Your task to perform on an android device: add a contact in the contacts app Image 0: 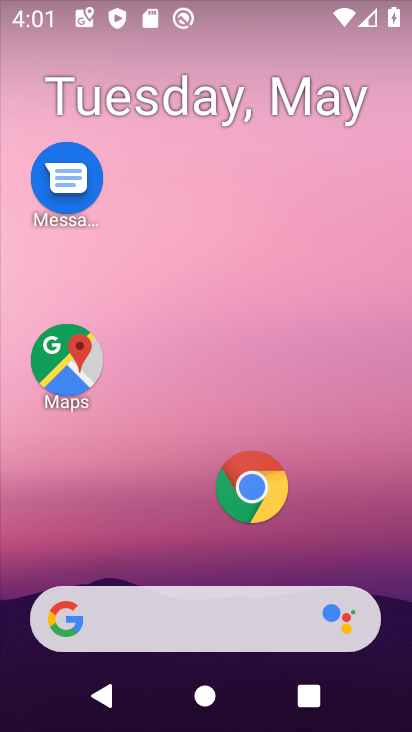
Step 0: drag from (276, 556) to (268, 3)
Your task to perform on an android device: add a contact in the contacts app Image 1: 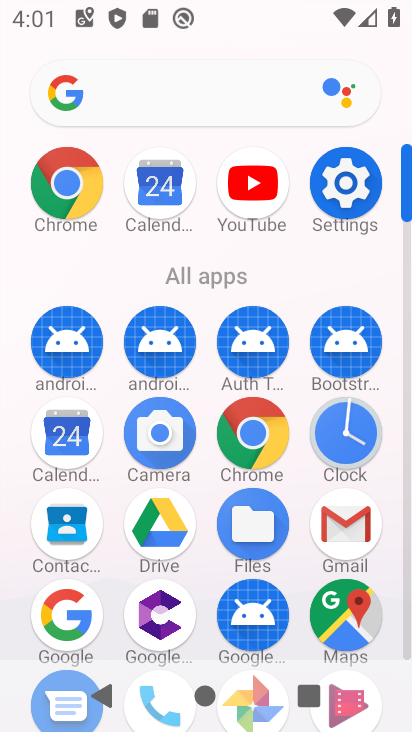
Step 1: click (67, 529)
Your task to perform on an android device: add a contact in the contacts app Image 2: 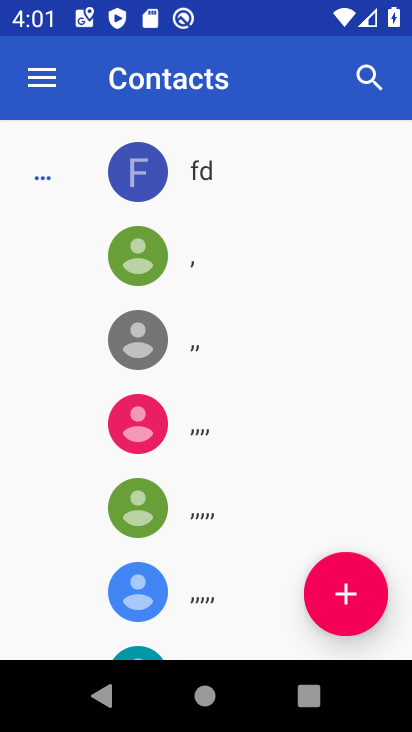
Step 2: click (335, 609)
Your task to perform on an android device: add a contact in the contacts app Image 3: 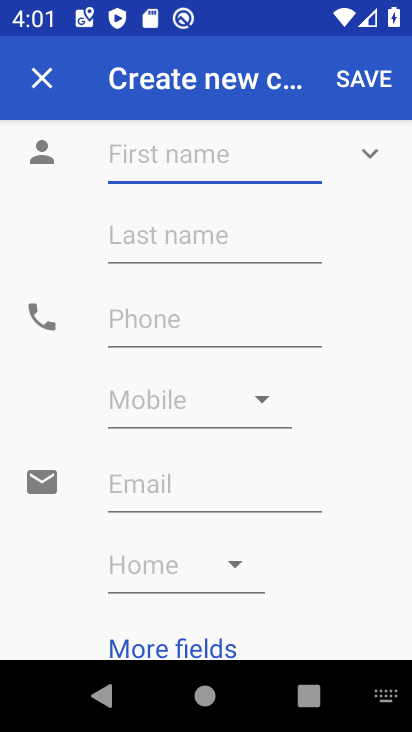
Step 3: click (211, 185)
Your task to perform on an android device: add a contact in the contacts app Image 4: 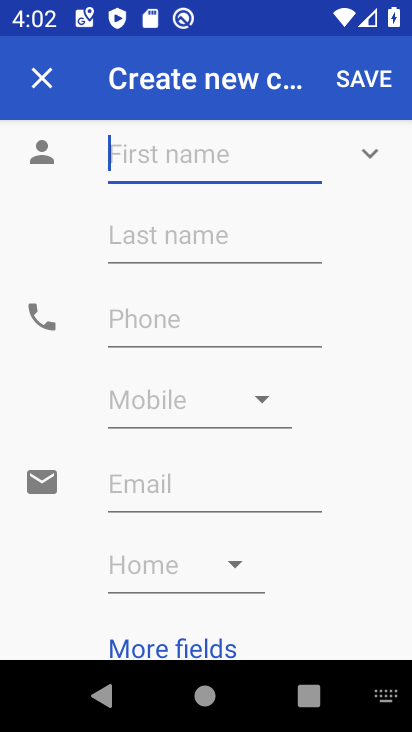
Step 4: type "Anita"
Your task to perform on an android device: add a contact in the contacts app Image 5: 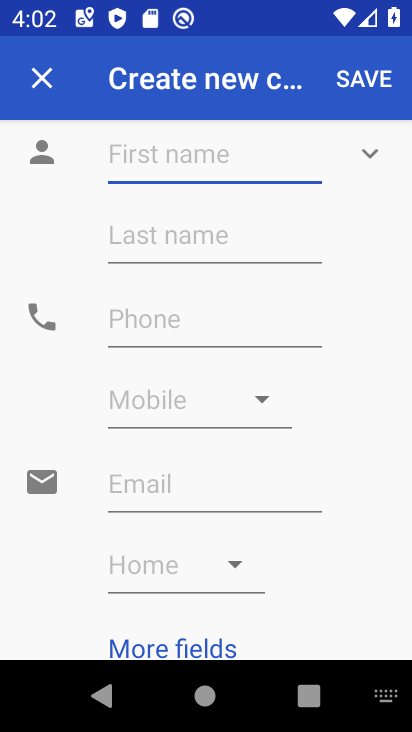
Step 5: click (134, 245)
Your task to perform on an android device: add a contact in the contacts app Image 6: 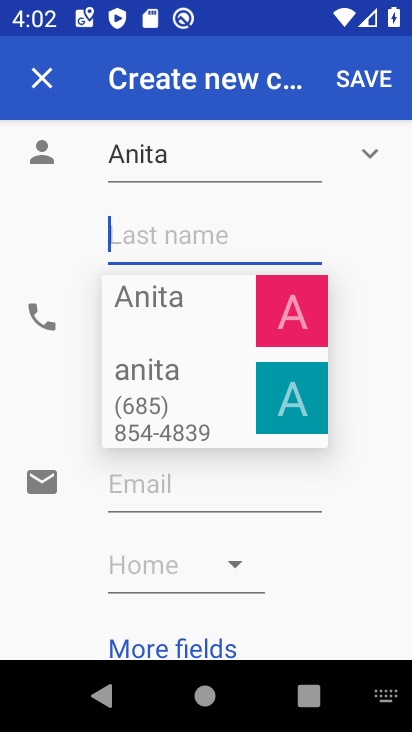
Step 6: type "lobo"
Your task to perform on an android device: add a contact in the contacts app Image 7: 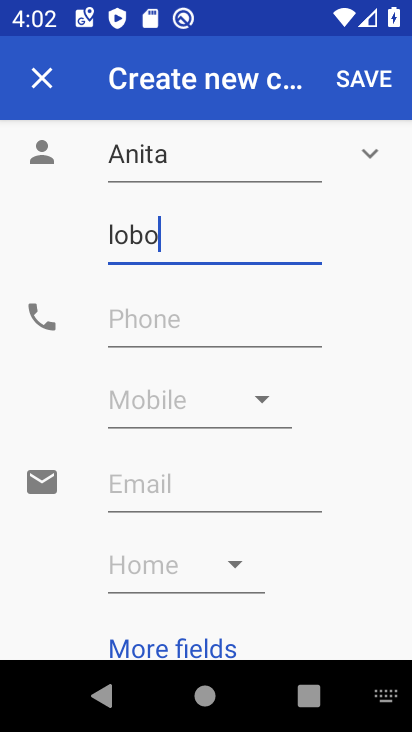
Step 7: click (204, 325)
Your task to perform on an android device: add a contact in the contacts app Image 8: 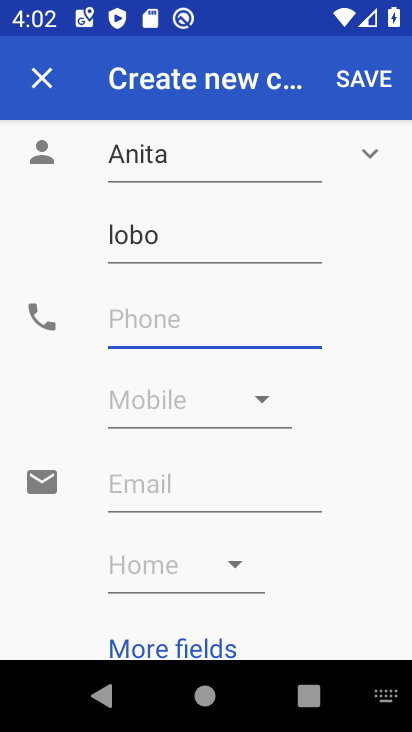
Step 8: type "9000090909"
Your task to perform on an android device: add a contact in the contacts app Image 9: 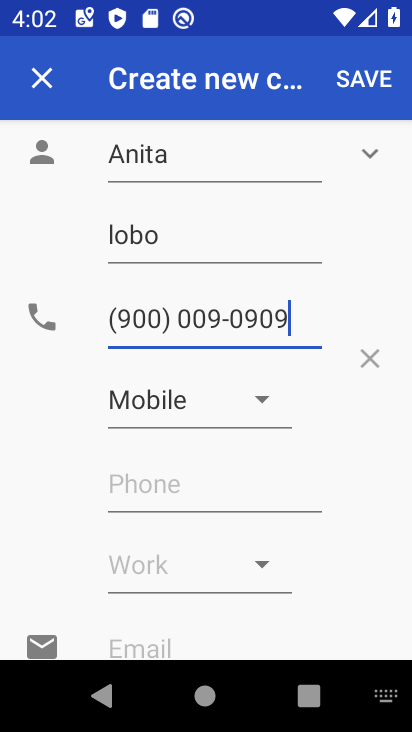
Step 9: click (346, 73)
Your task to perform on an android device: add a contact in the contacts app Image 10: 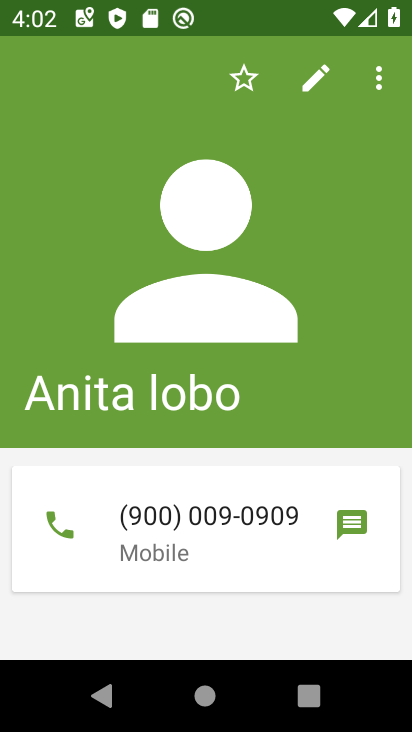
Step 10: task complete